Your task to perform on an android device: Show the shopping cart on ebay. Add "usb-a" to the cart on ebay, then select checkout. Image 0: 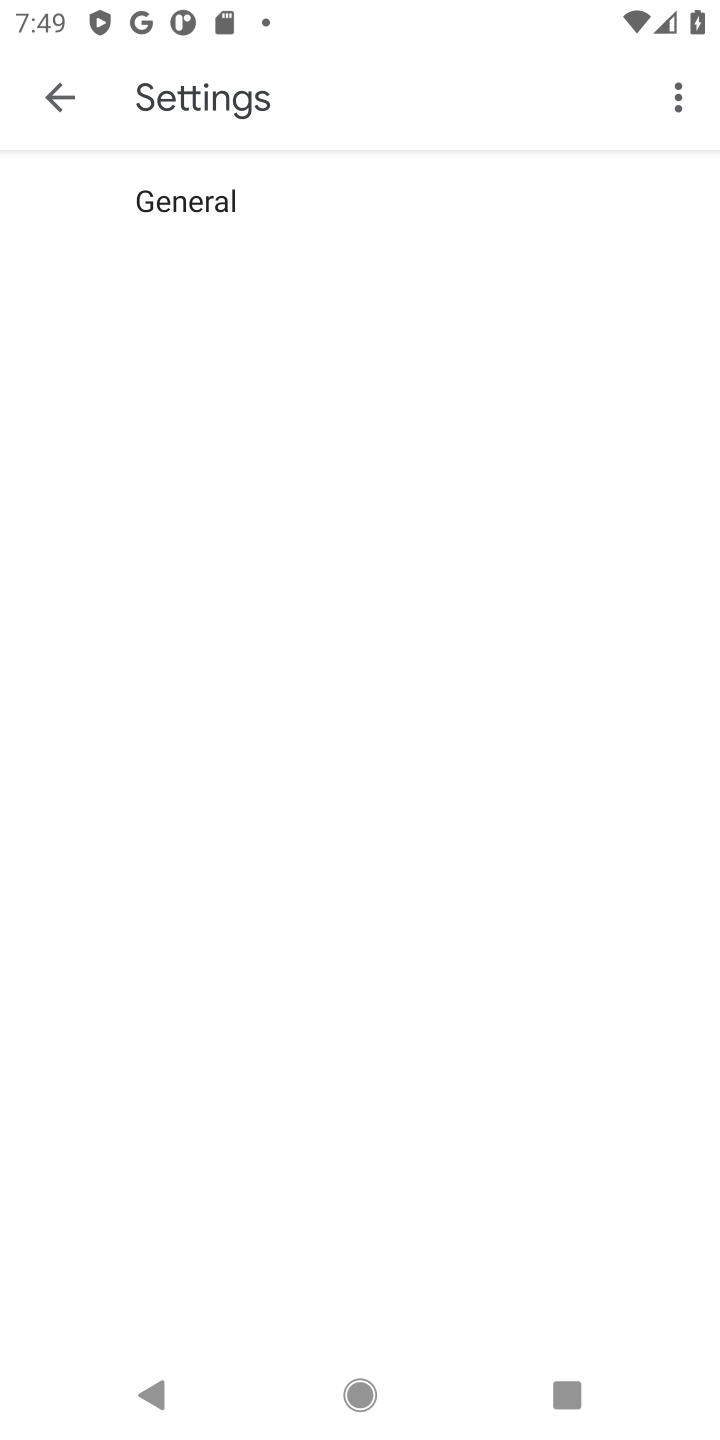
Step 0: press home button
Your task to perform on an android device: Show the shopping cart on ebay. Add "usb-a" to the cart on ebay, then select checkout. Image 1: 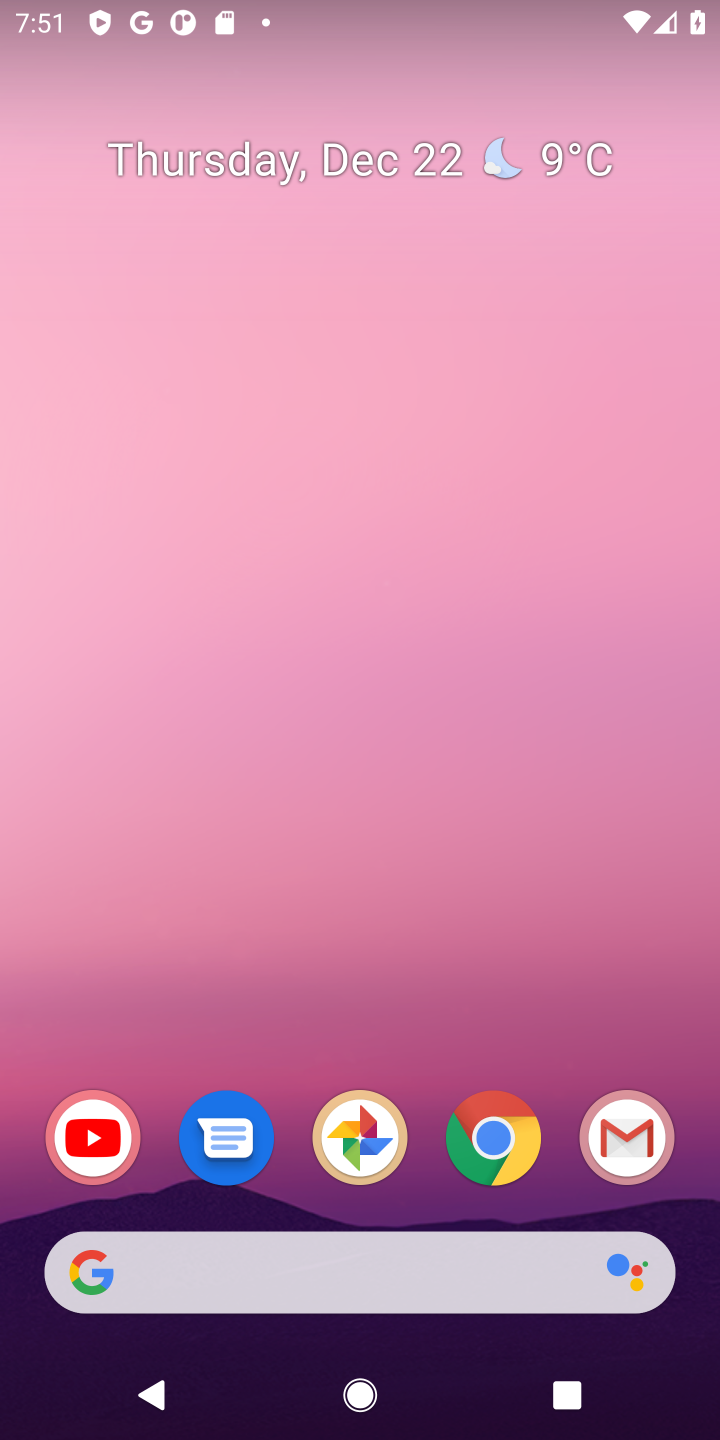
Step 1: click (499, 1168)
Your task to perform on an android device: Show the shopping cart on ebay. Add "usb-a" to the cart on ebay, then select checkout. Image 2: 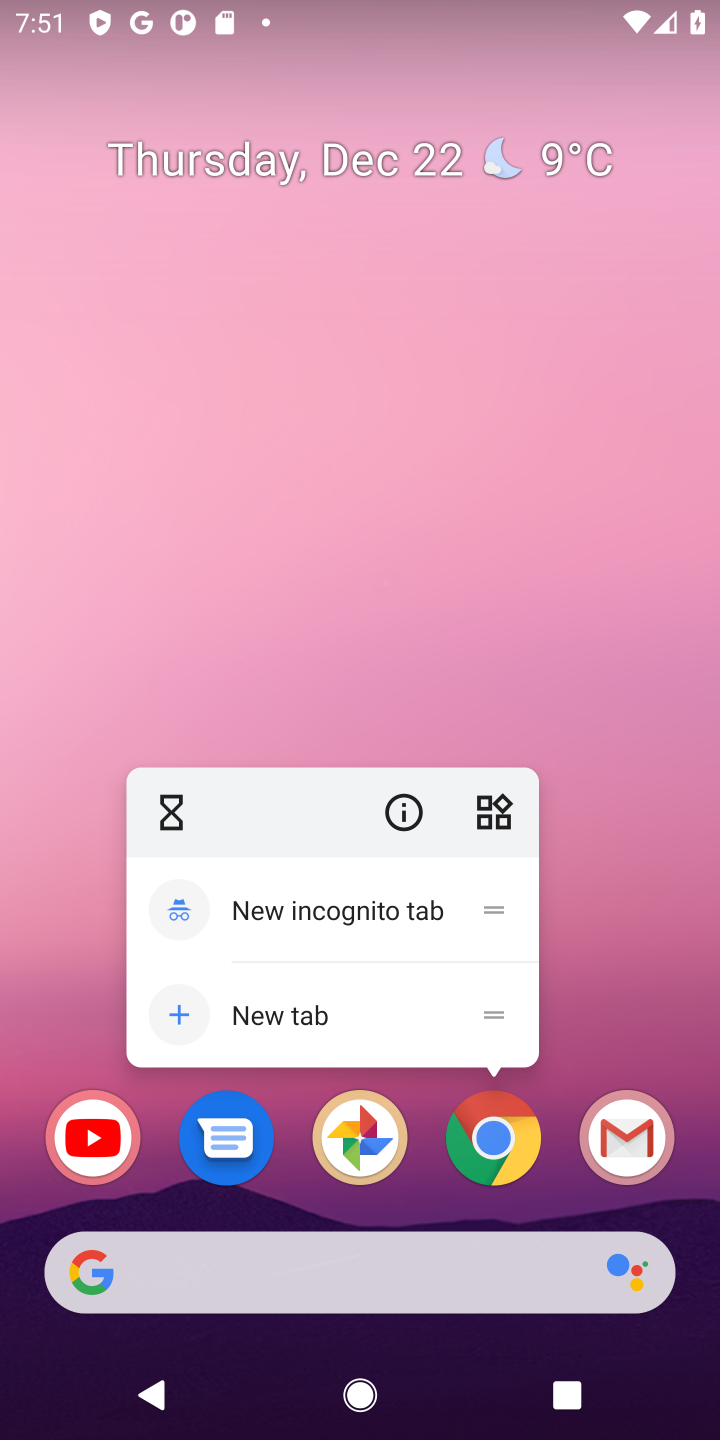
Step 2: click (522, 1121)
Your task to perform on an android device: Show the shopping cart on ebay. Add "usb-a" to the cart on ebay, then select checkout. Image 3: 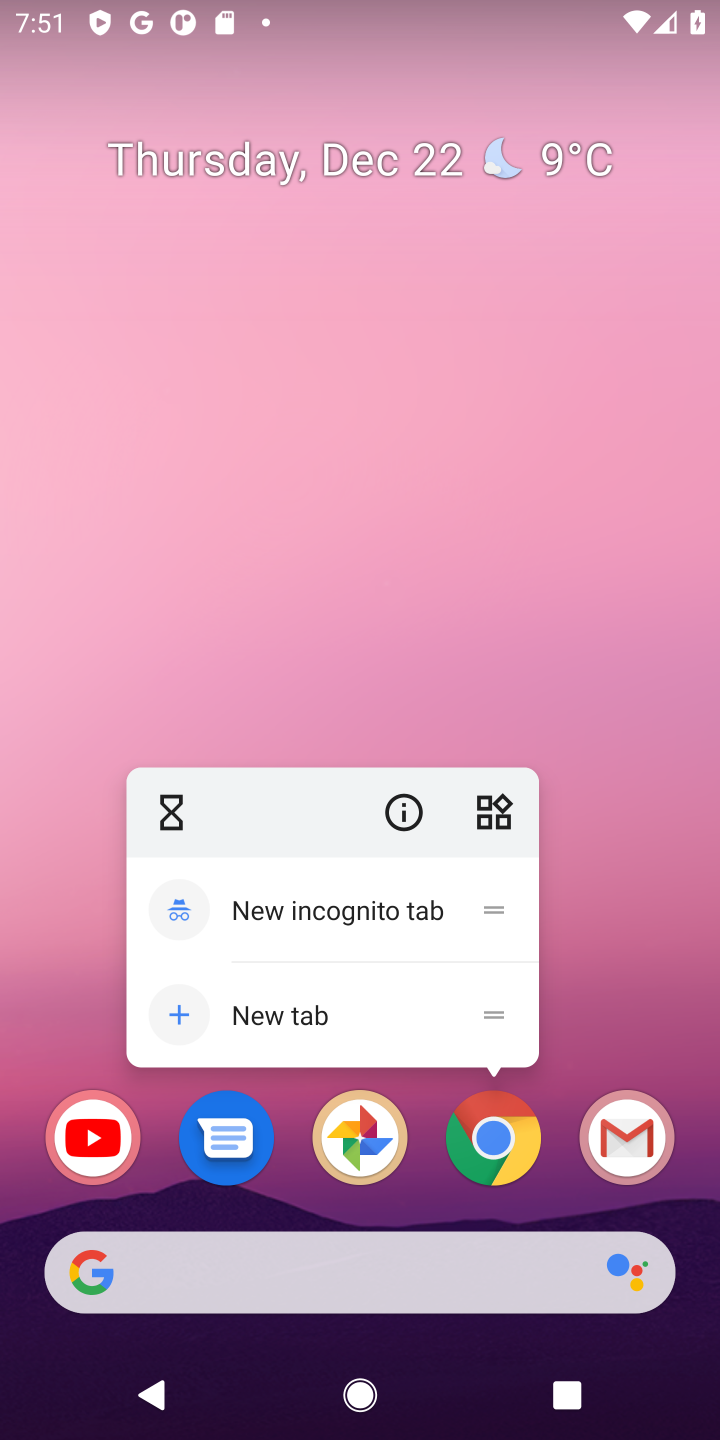
Step 3: click (492, 1139)
Your task to perform on an android device: Show the shopping cart on ebay. Add "usb-a" to the cart on ebay, then select checkout. Image 4: 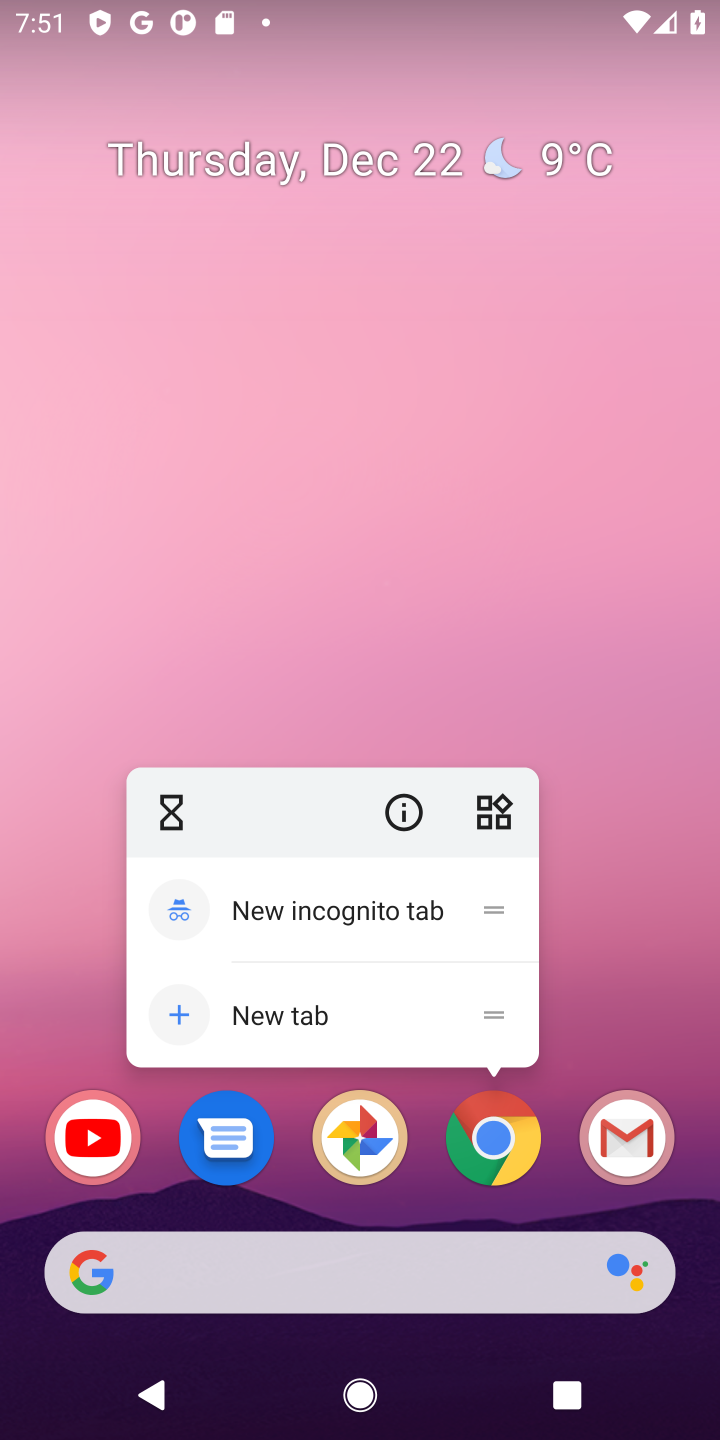
Step 4: click (498, 1132)
Your task to perform on an android device: Show the shopping cart on ebay. Add "usb-a" to the cart on ebay, then select checkout. Image 5: 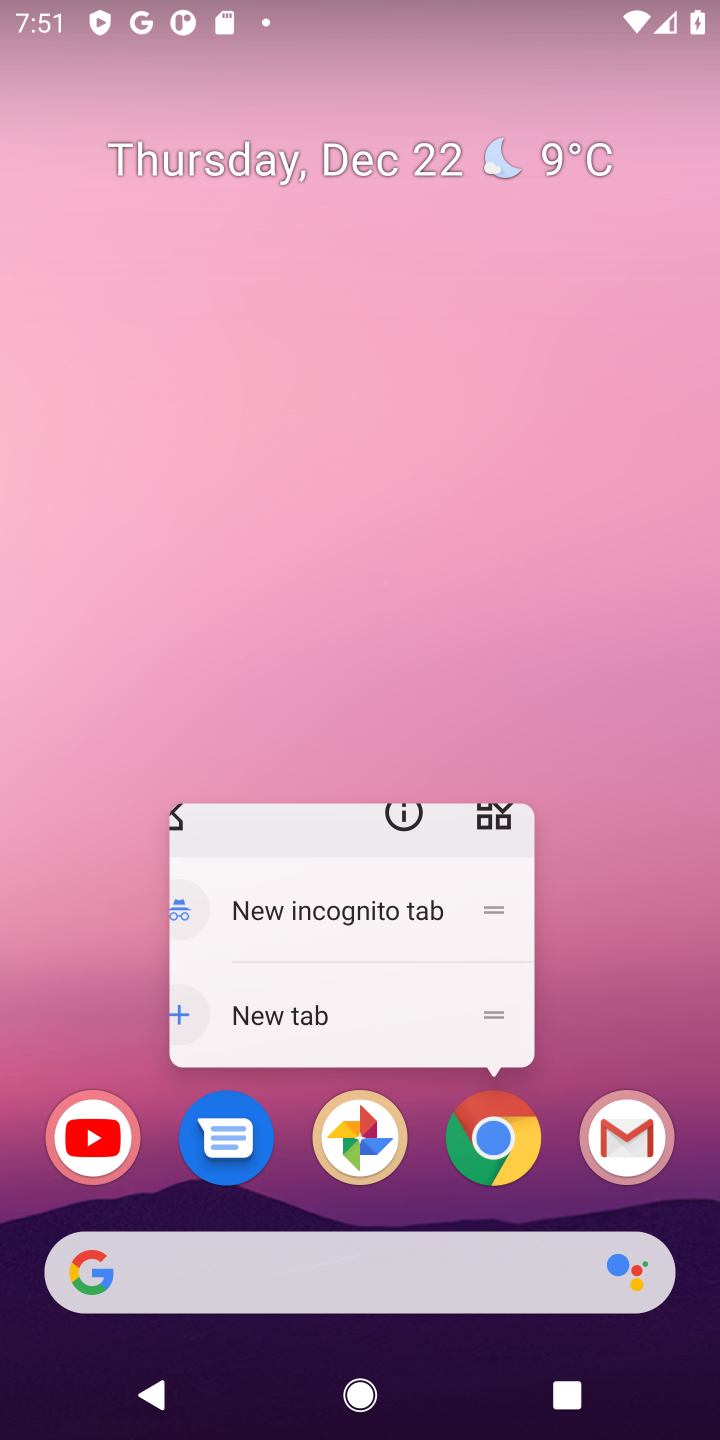
Step 5: click (498, 1155)
Your task to perform on an android device: Show the shopping cart on ebay. Add "usb-a" to the cart on ebay, then select checkout. Image 6: 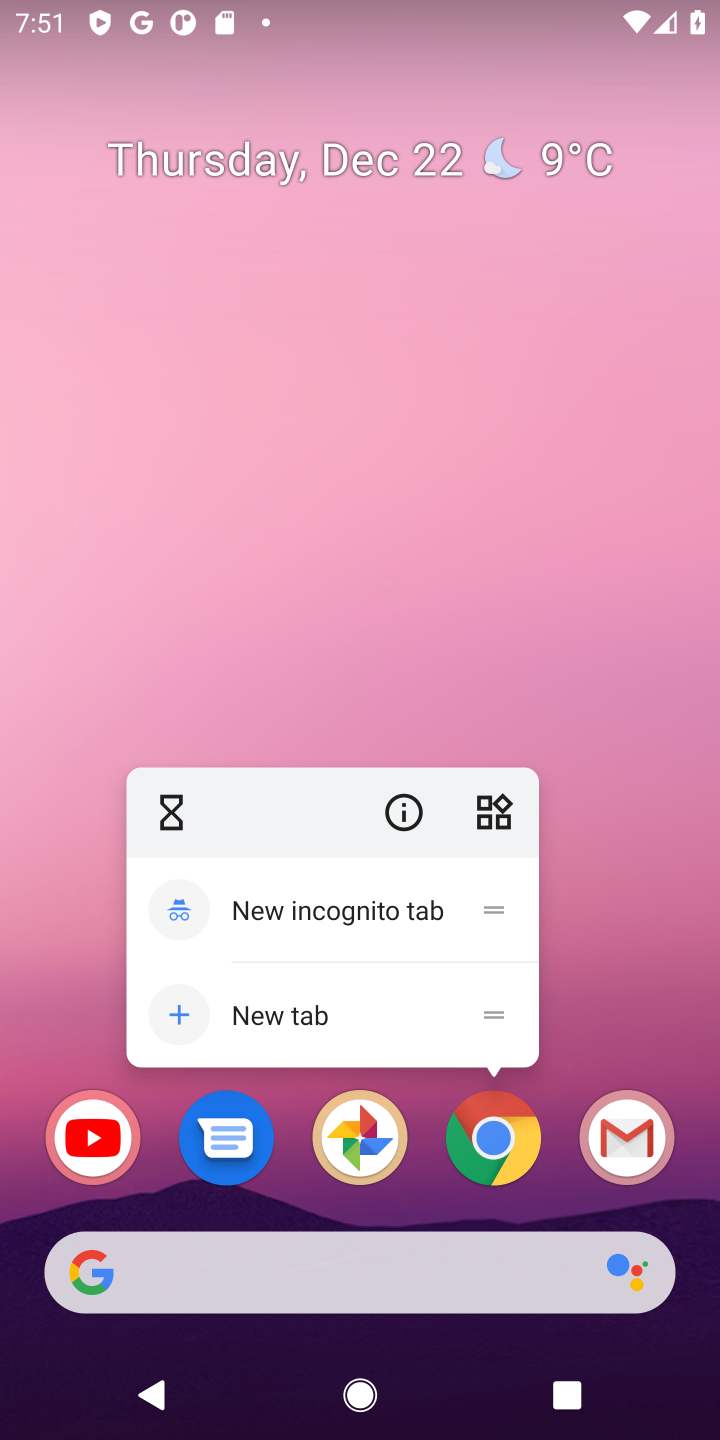
Step 6: click (498, 1155)
Your task to perform on an android device: Show the shopping cart on ebay. Add "usb-a" to the cart on ebay, then select checkout. Image 7: 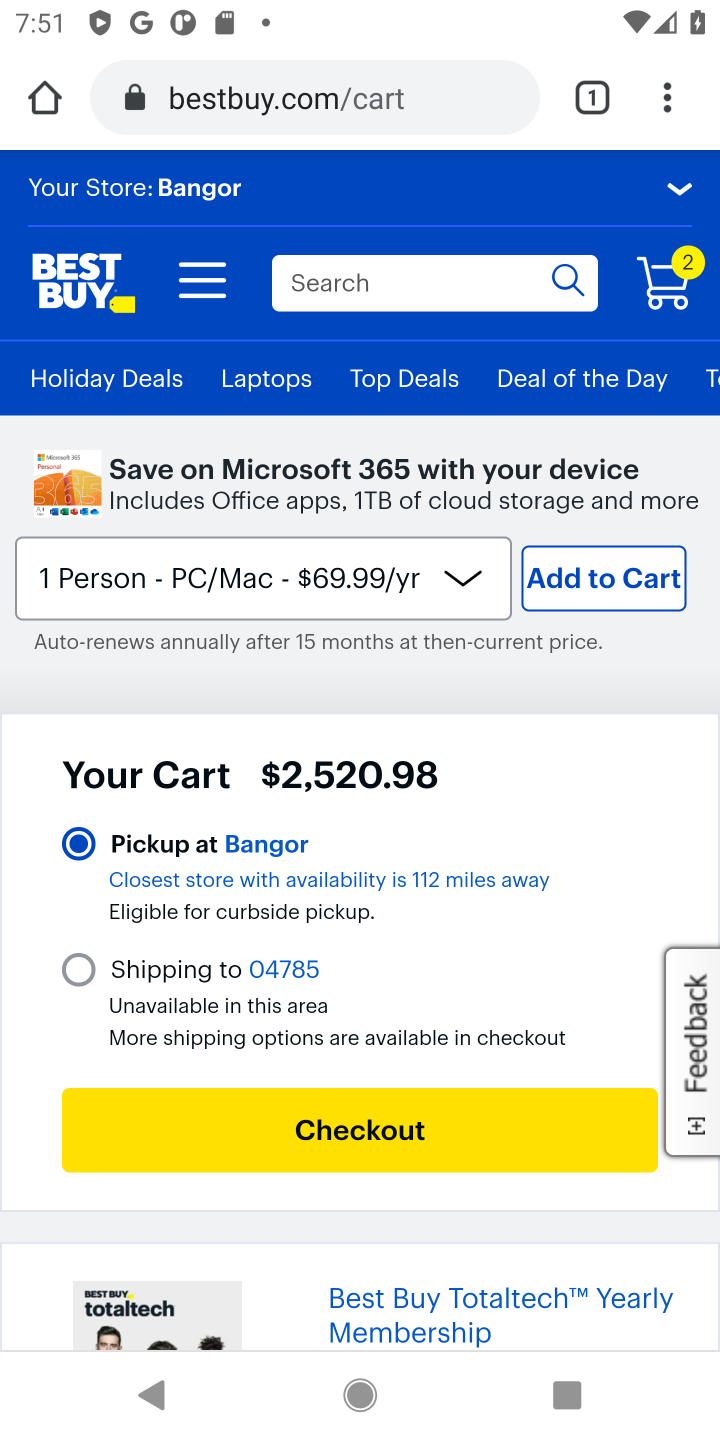
Step 7: click (676, 302)
Your task to perform on an android device: Show the shopping cart on ebay. Add "usb-a" to the cart on ebay, then select checkout. Image 8: 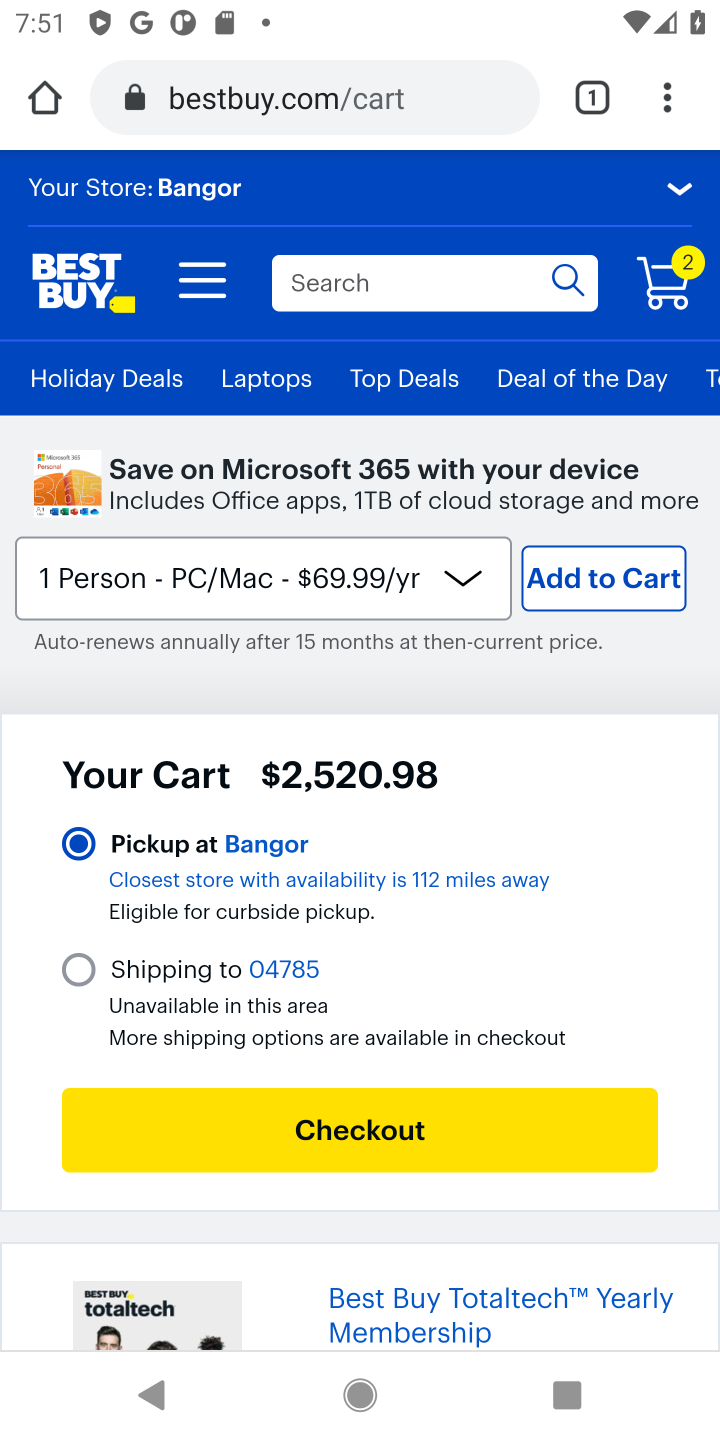
Step 8: click (283, 106)
Your task to perform on an android device: Show the shopping cart on ebay. Add "usb-a" to the cart on ebay, then select checkout. Image 9: 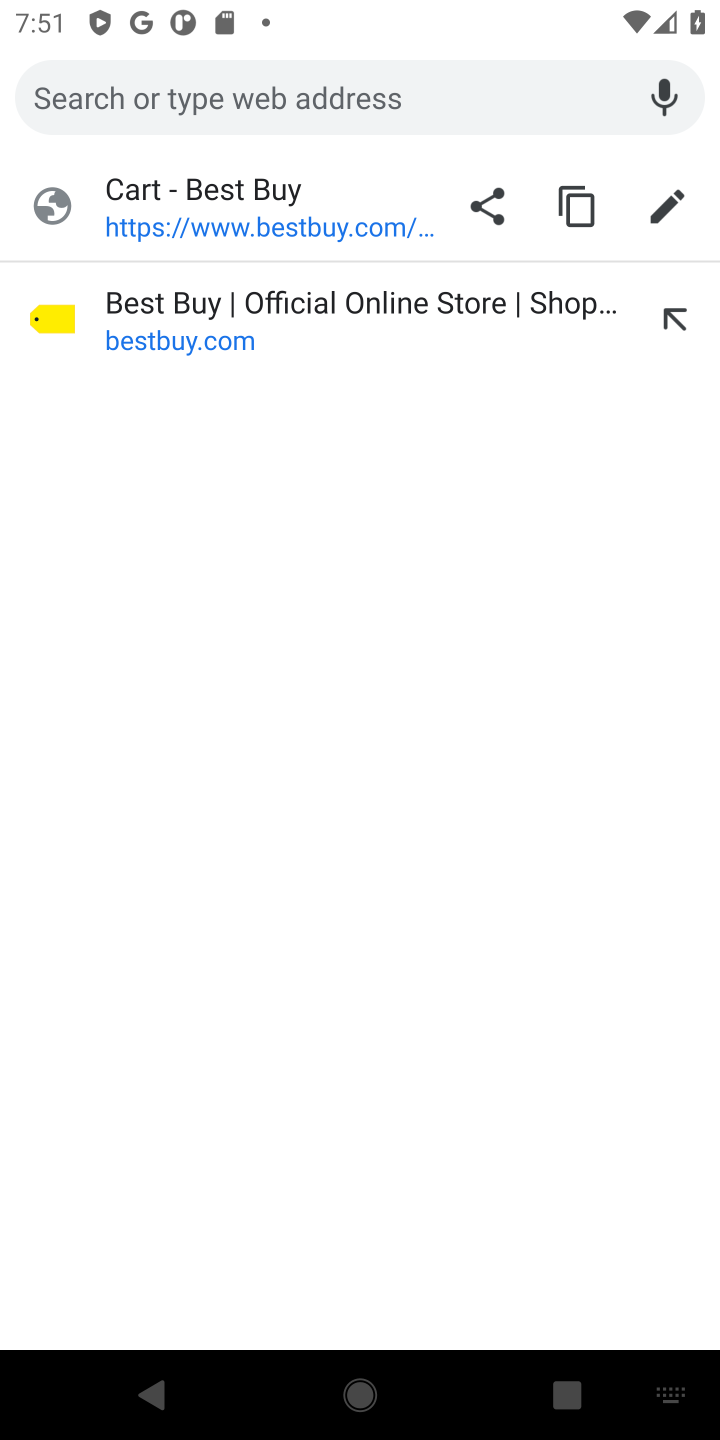
Step 9: type "ebay"
Your task to perform on an android device: Show the shopping cart on ebay. Add "usb-a" to the cart on ebay, then select checkout. Image 10: 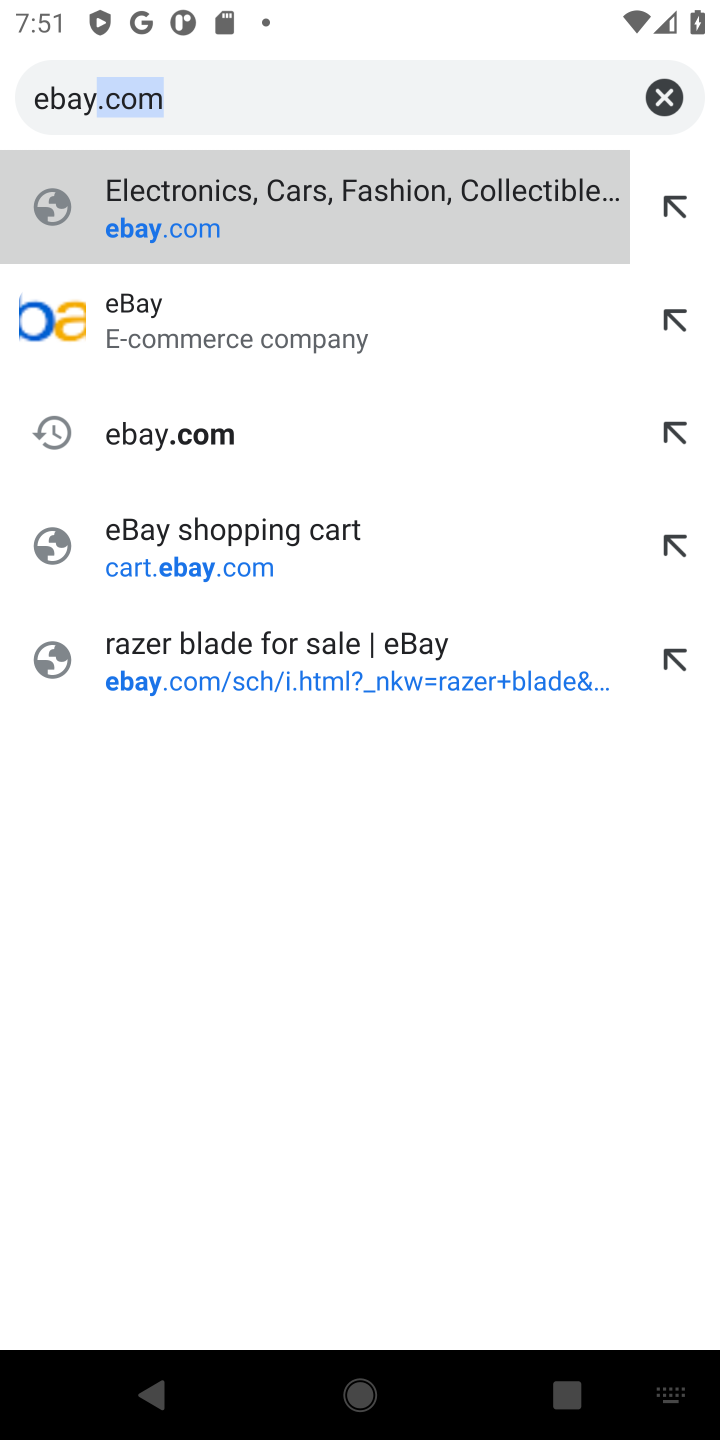
Step 10: click (412, 216)
Your task to perform on an android device: Show the shopping cart on ebay. Add "usb-a" to the cart on ebay, then select checkout. Image 11: 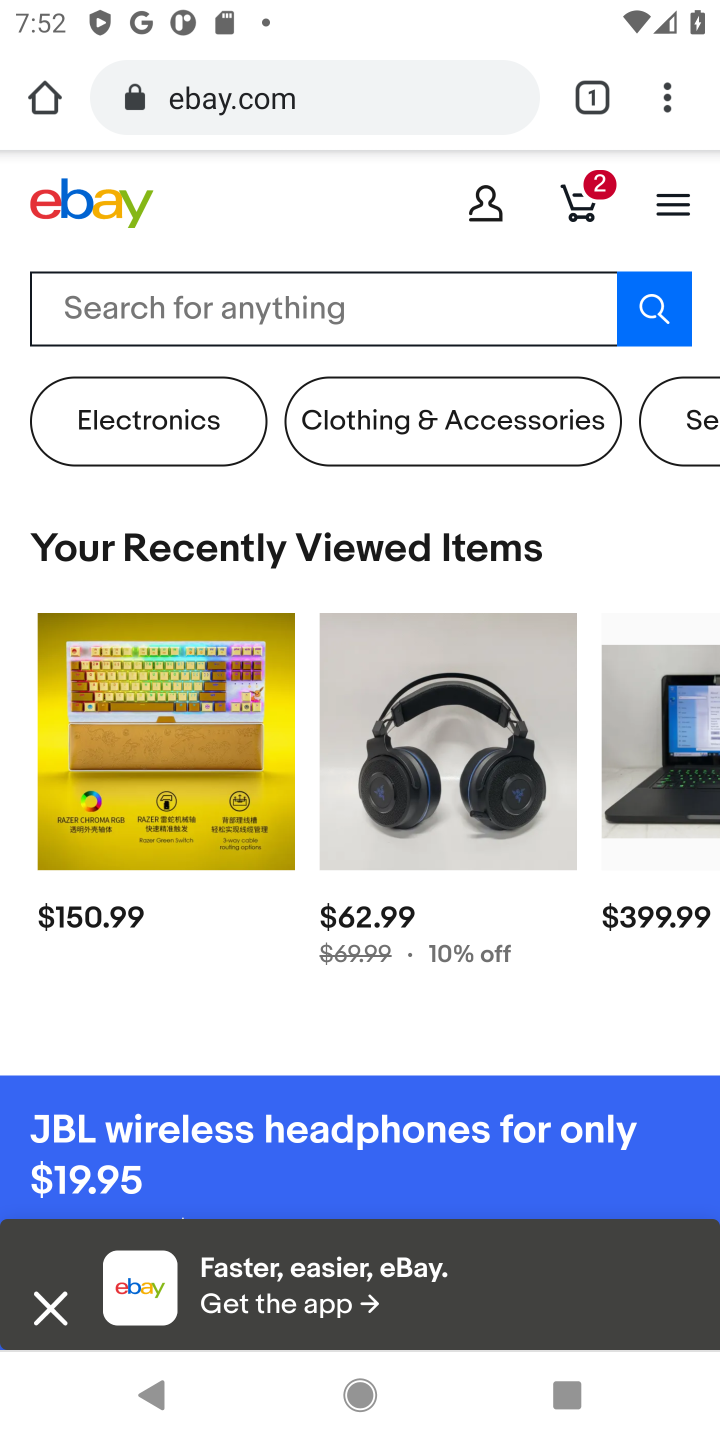
Step 11: click (580, 199)
Your task to perform on an android device: Show the shopping cart on ebay. Add "usb-a" to the cart on ebay, then select checkout. Image 12: 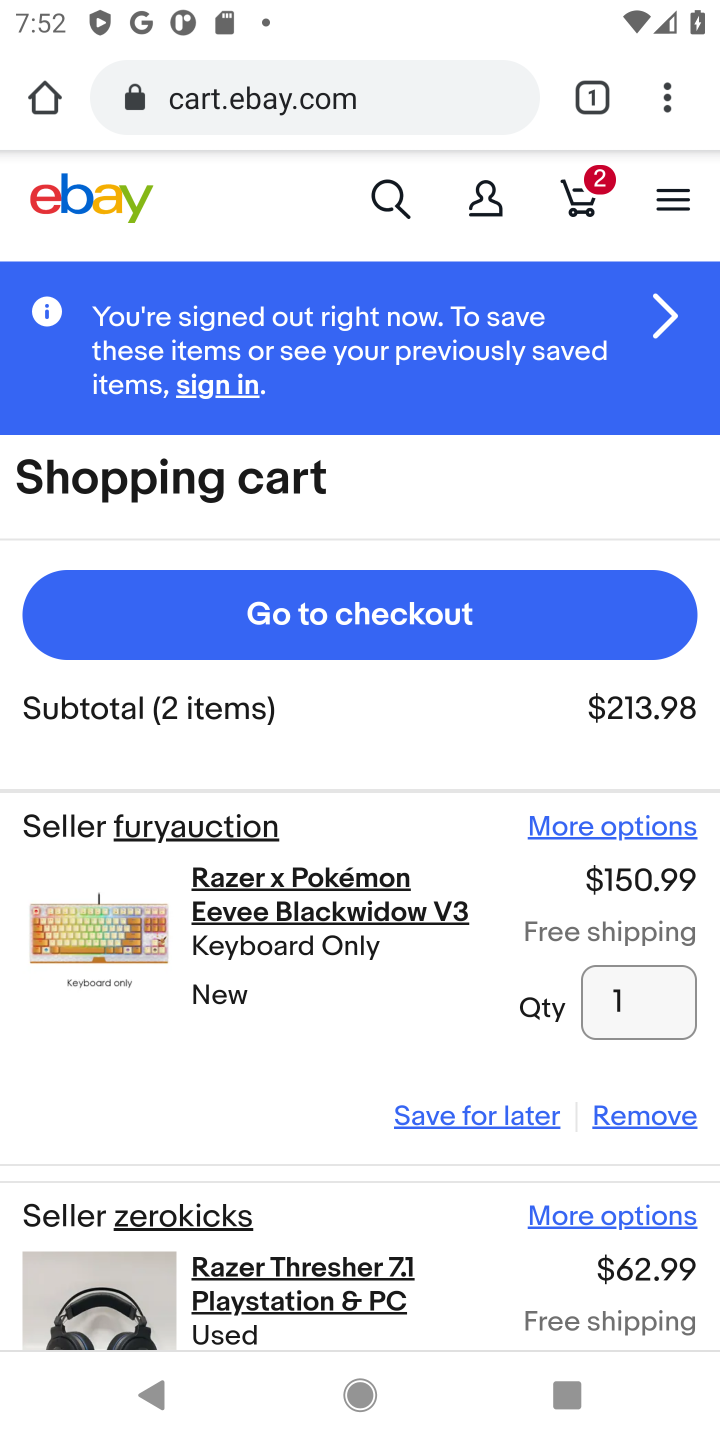
Step 12: click (661, 1123)
Your task to perform on an android device: Show the shopping cart on ebay. Add "usb-a" to the cart on ebay, then select checkout. Image 13: 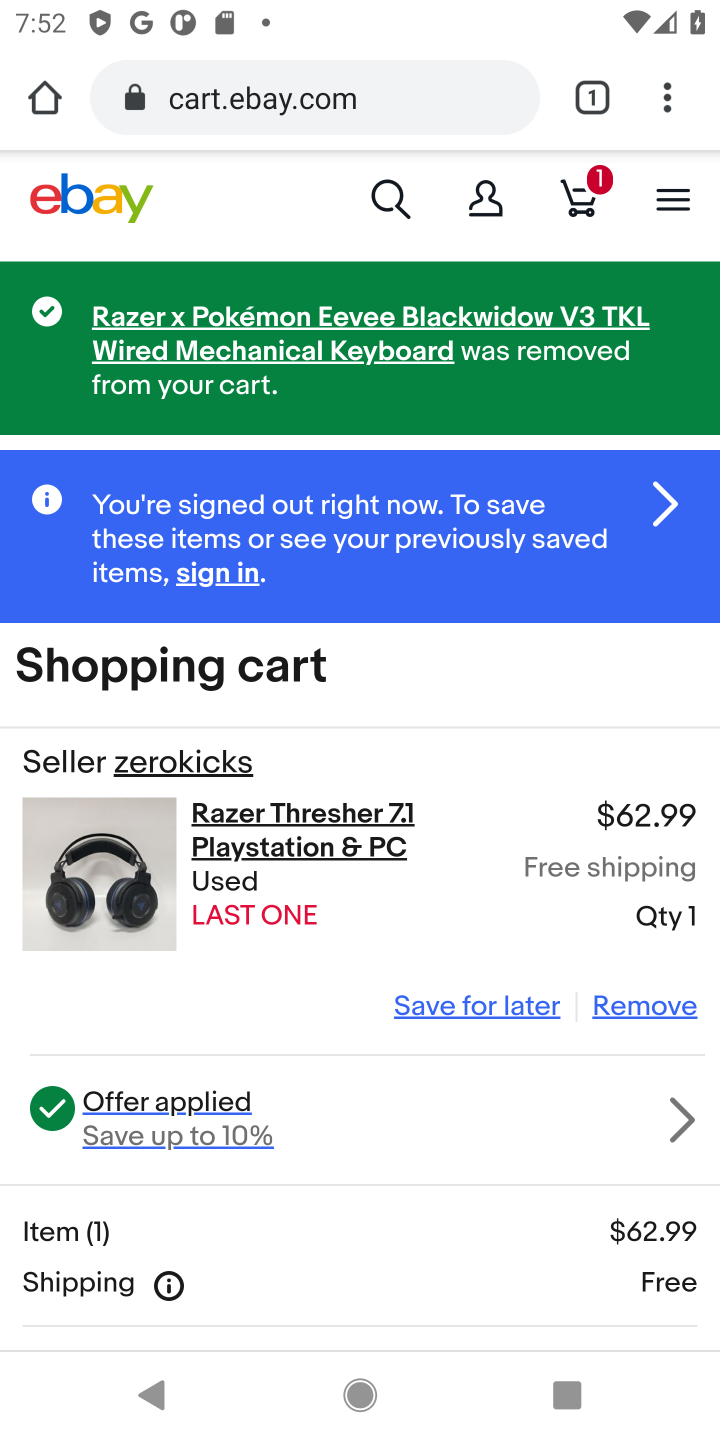
Step 13: click (371, 222)
Your task to perform on an android device: Show the shopping cart on ebay. Add "usb-a" to the cart on ebay, then select checkout. Image 14: 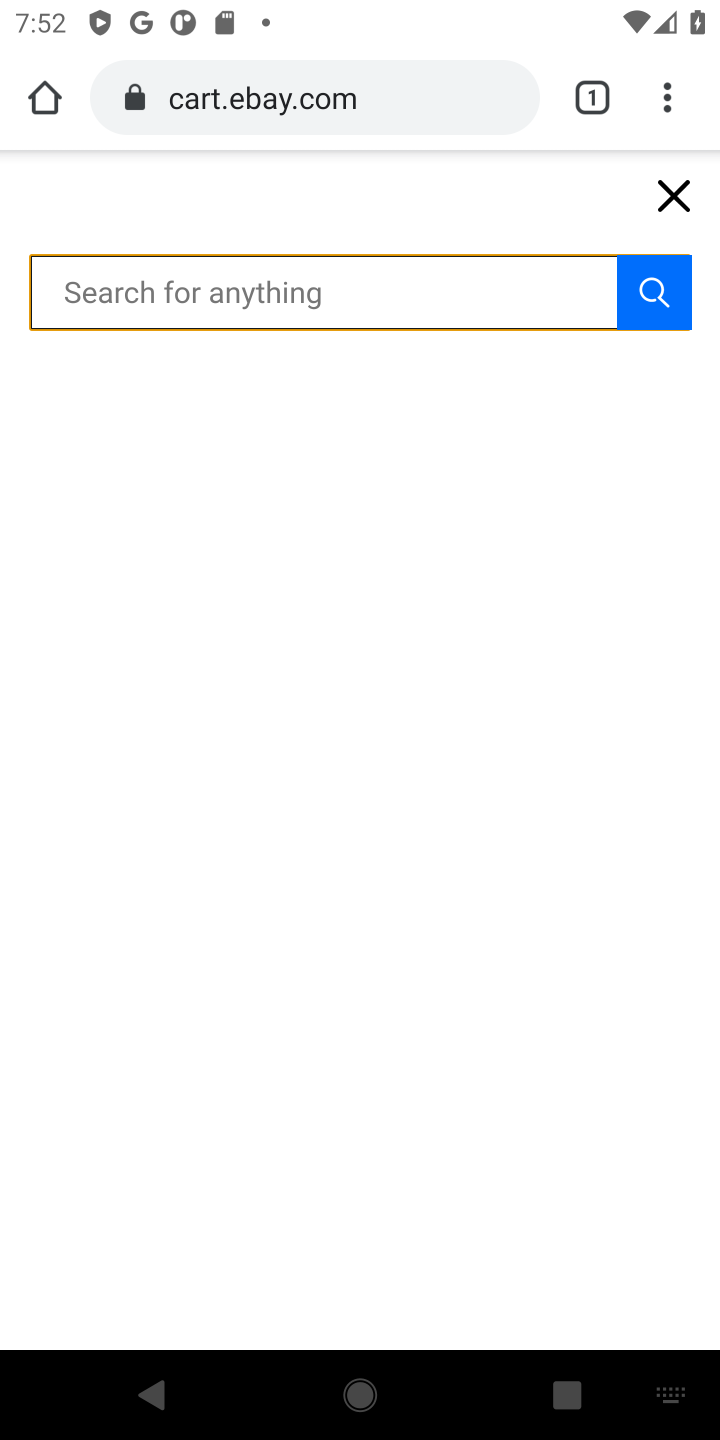
Step 14: type "usb-a"
Your task to perform on an android device: Show the shopping cart on ebay. Add "usb-a" to the cart on ebay, then select checkout. Image 15: 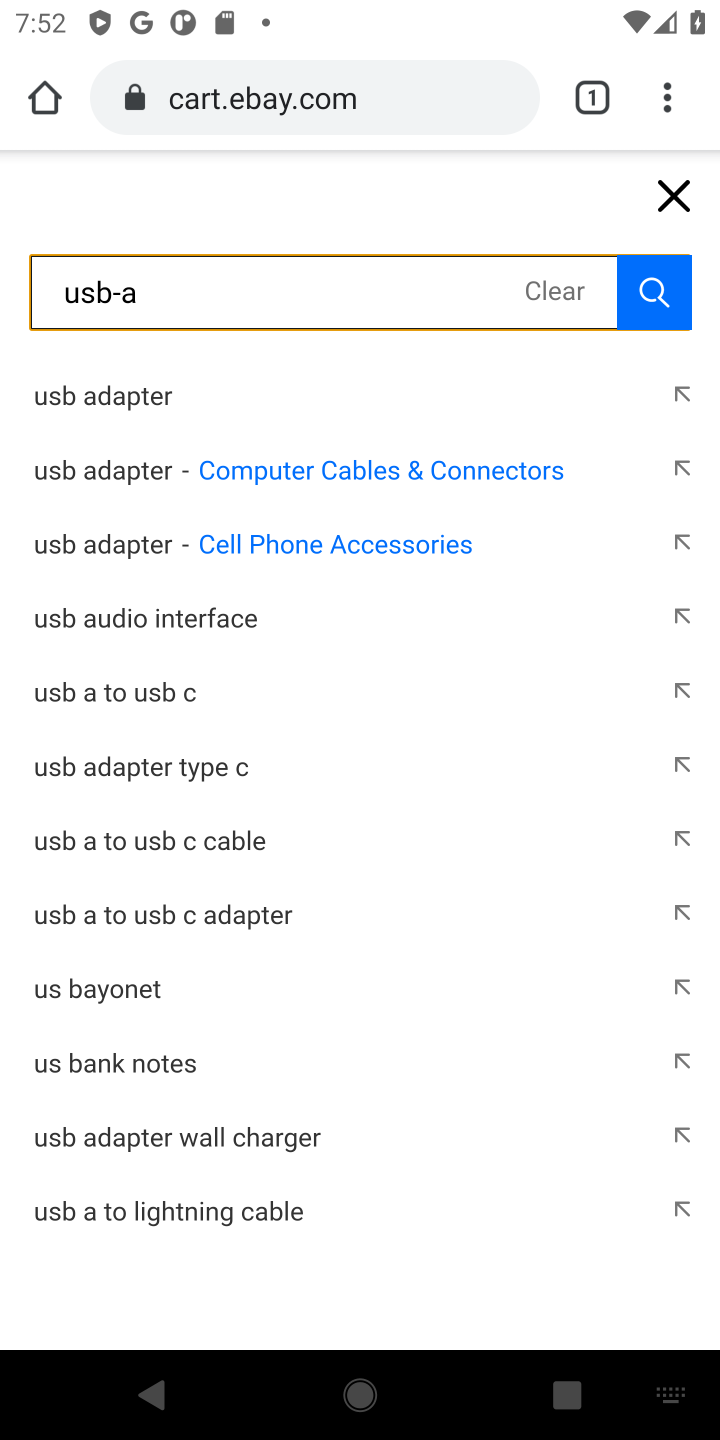
Step 15: click (661, 278)
Your task to perform on an android device: Show the shopping cart on ebay. Add "usb-a" to the cart on ebay, then select checkout. Image 16: 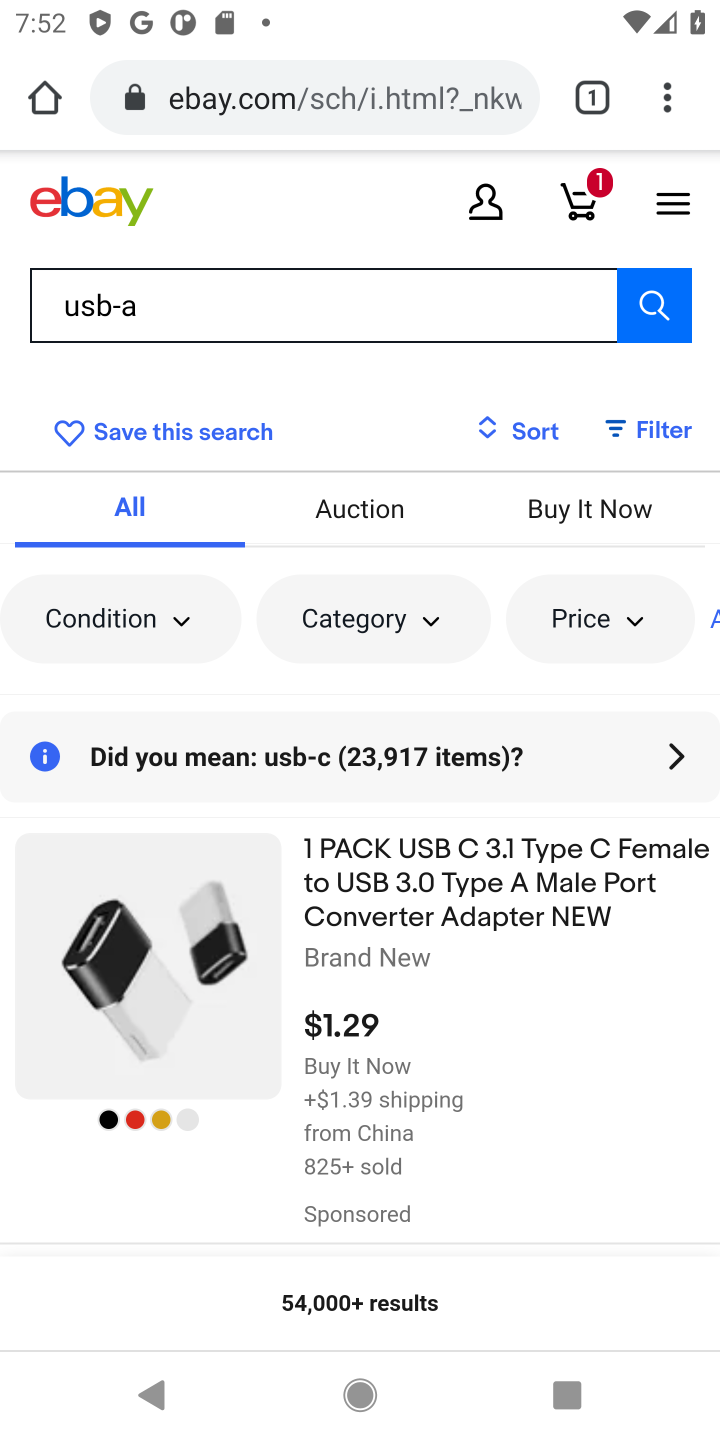
Step 16: click (428, 931)
Your task to perform on an android device: Show the shopping cart on ebay. Add "usb-a" to the cart on ebay, then select checkout. Image 17: 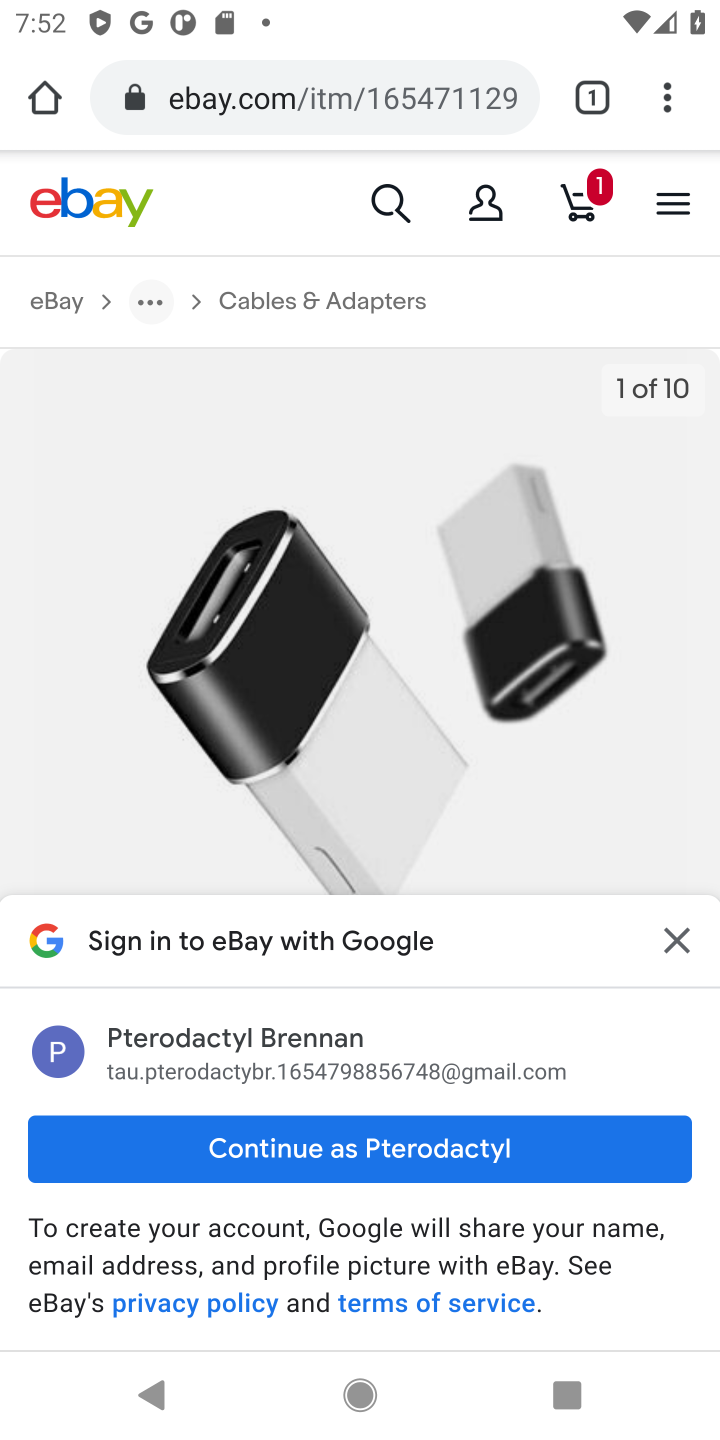
Step 17: click (676, 941)
Your task to perform on an android device: Show the shopping cart on ebay. Add "usb-a" to the cart on ebay, then select checkout. Image 18: 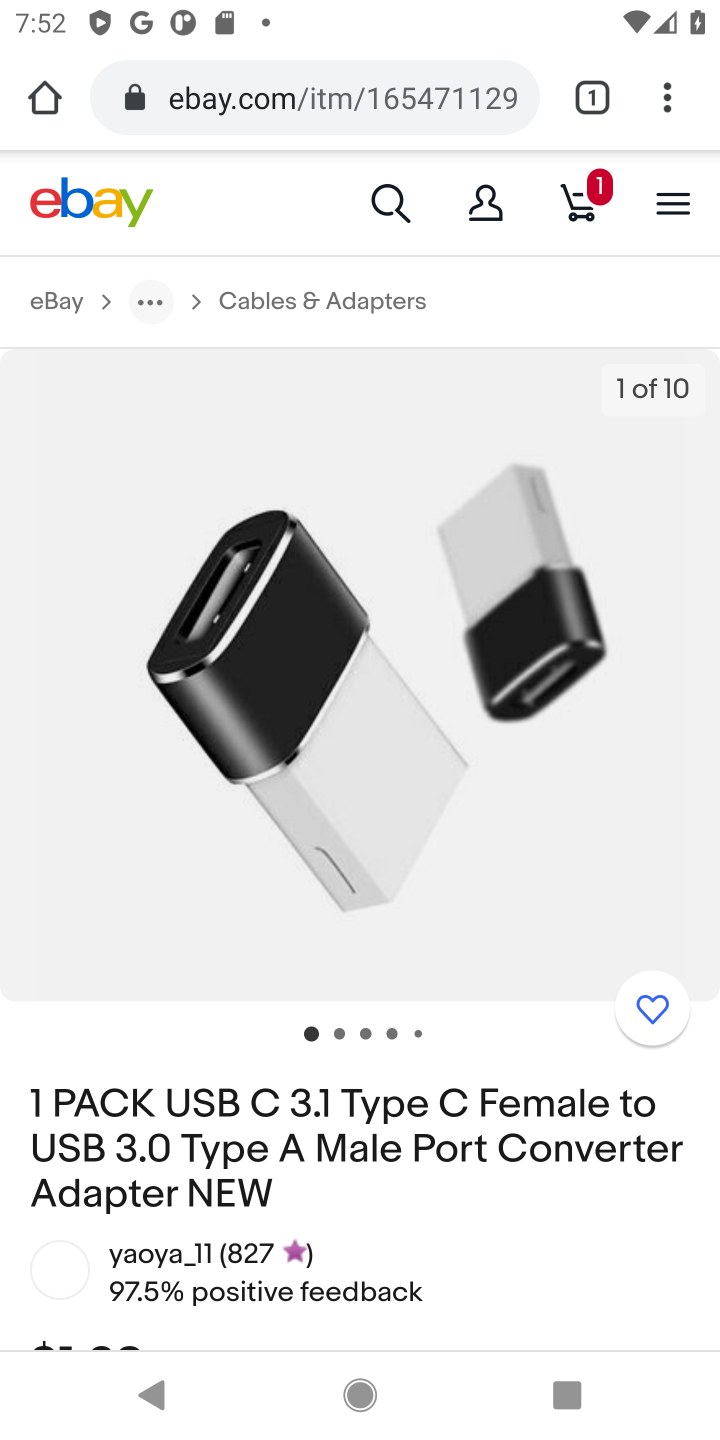
Step 18: drag from (390, 1172) to (454, 682)
Your task to perform on an android device: Show the shopping cart on ebay. Add "usb-a" to the cart on ebay, then select checkout. Image 19: 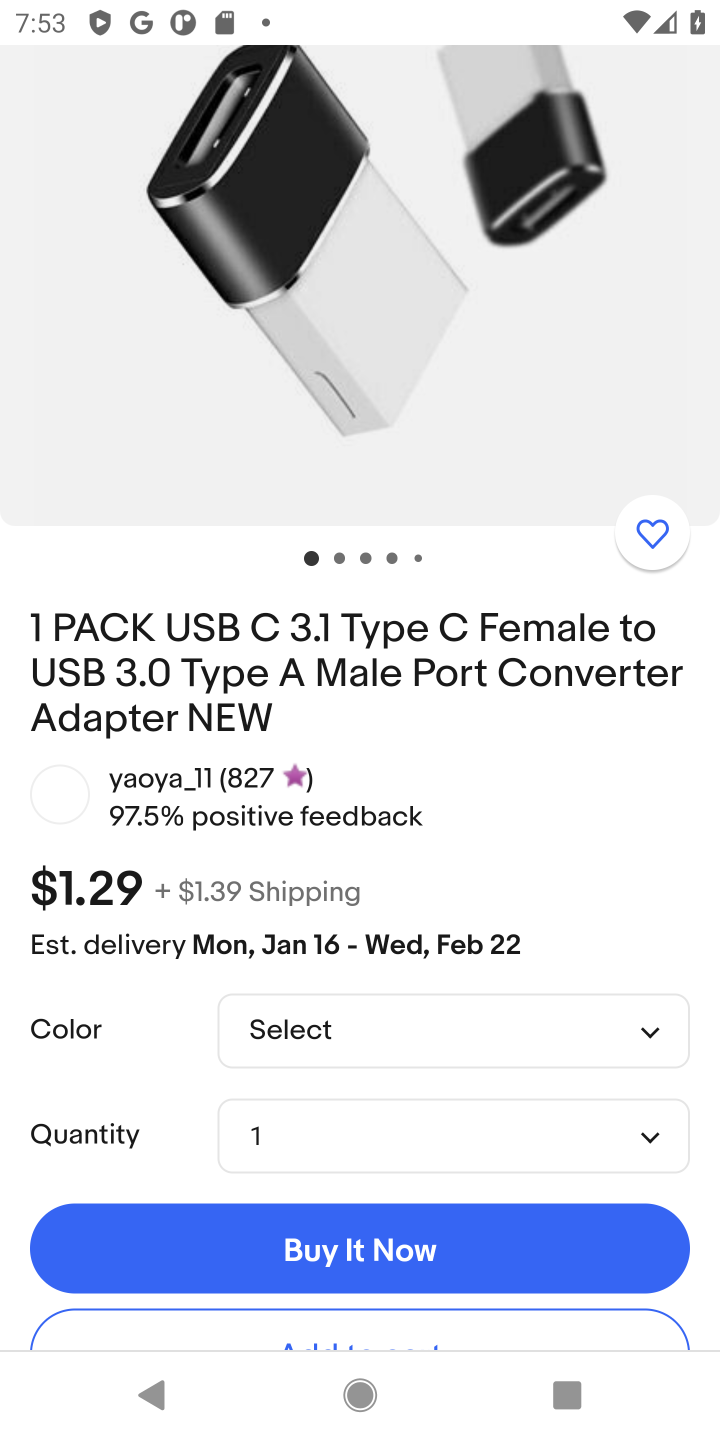
Step 19: drag from (485, 1176) to (490, 1027)
Your task to perform on an android device: Show the shopping cart on ebay. Add "usb-a" to the cart on ebay, then select checkout. Image 20: 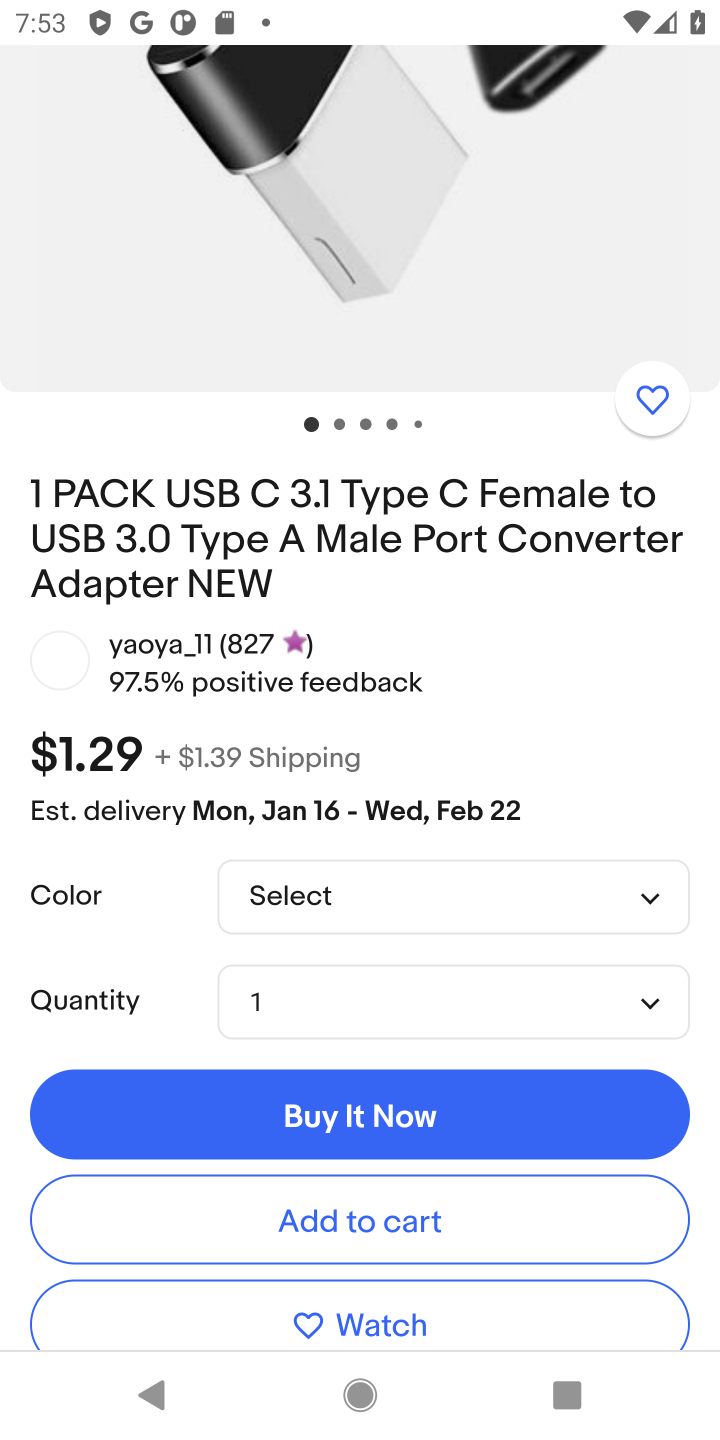
Step 20: click (409, 905)
Your task to perform on an android device: Show the shopping cart on ebay. Add "usb-a" to the cart on ebay, then select checkout. Image 21: 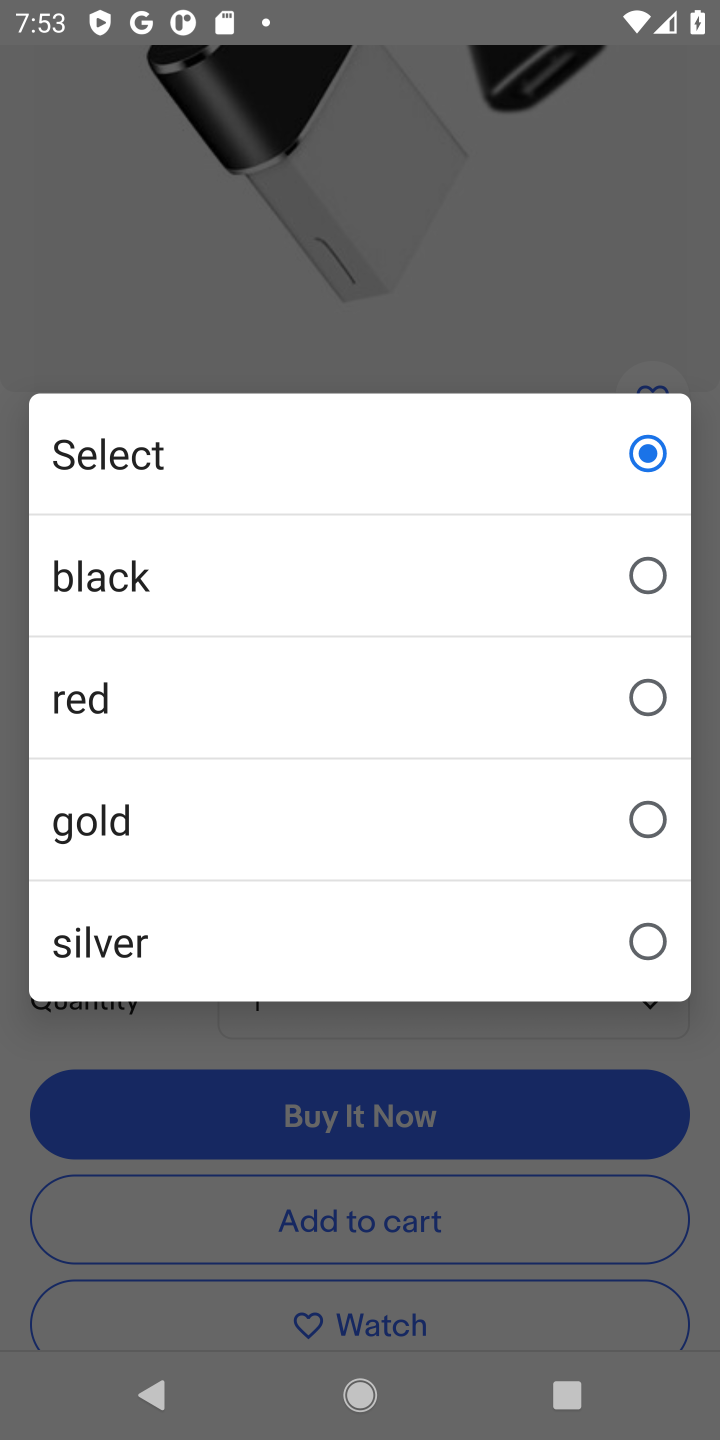
Step 21: click (213, 567)
Your task to perform on an android device: Show the shopping cart on ebay. Add "usb-a" to the cart on ebay, then select checkout. Image 22: 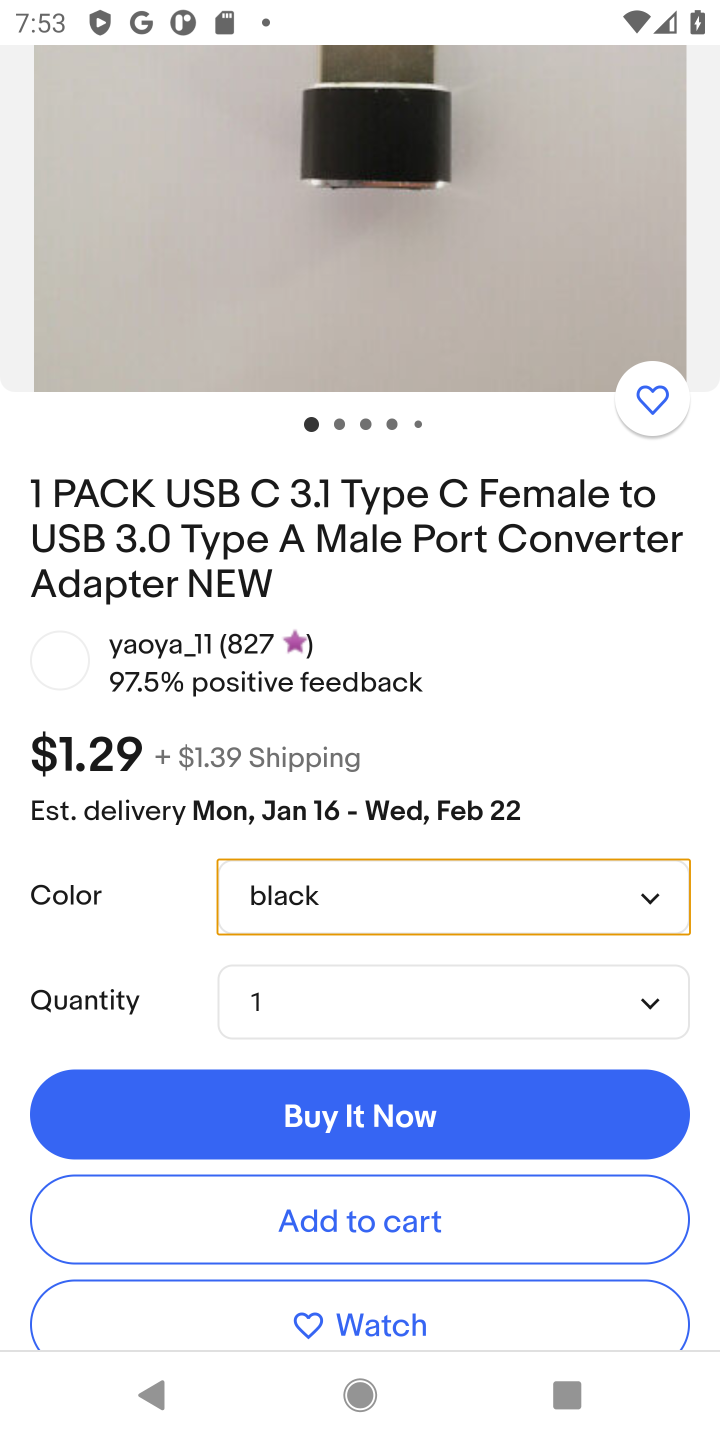
Step 22: click (368, 1233)
Your task to perform on an android device: Show the shopping cart on ebay. Add "usb-a" to the cart on ebay, then select checkout. Image 23: 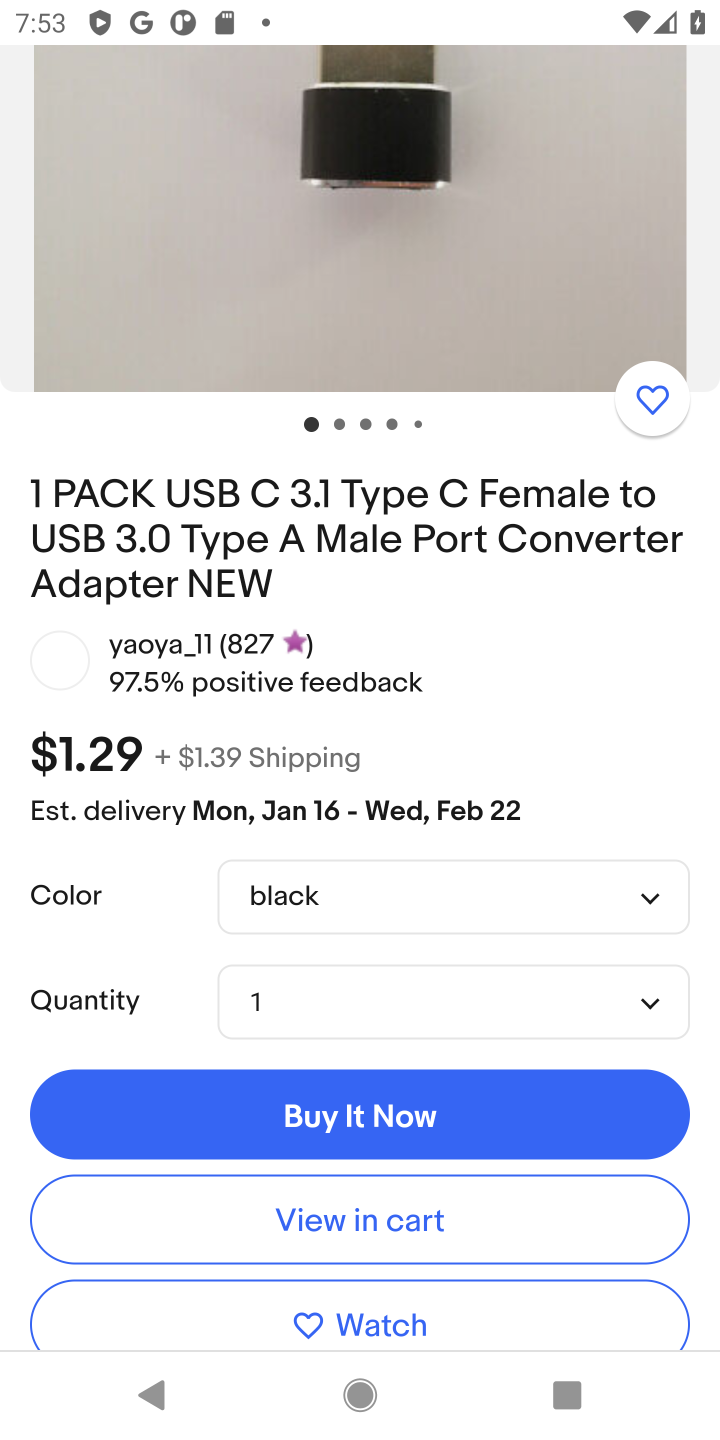
Step 23: click (368, 1233)
Your task to perform on an android device: Show the shopping cart on ebay. Add "usb-a" to the cart on ebay, then select checkout. Image 24: 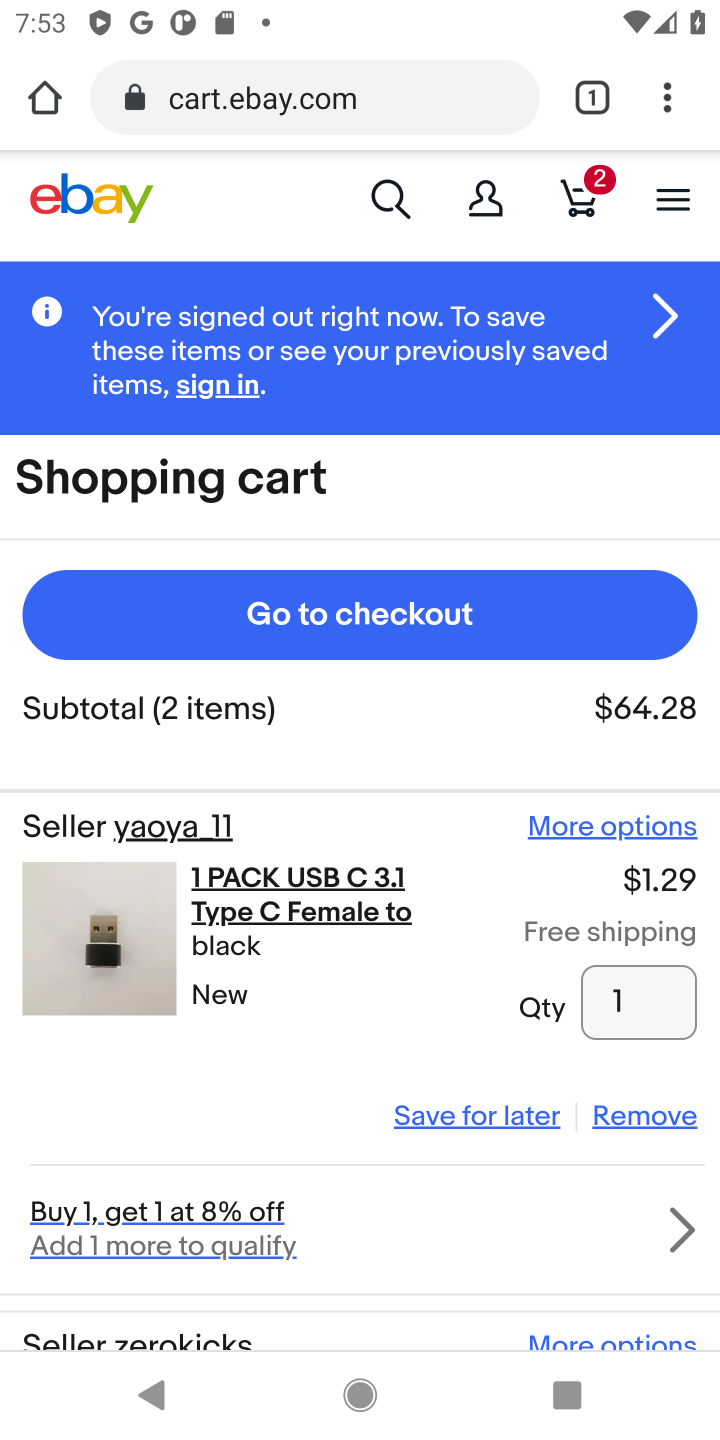
Step 24: task complete